Your task to perform on an android device: set default search engine in the chrome app Image 0: 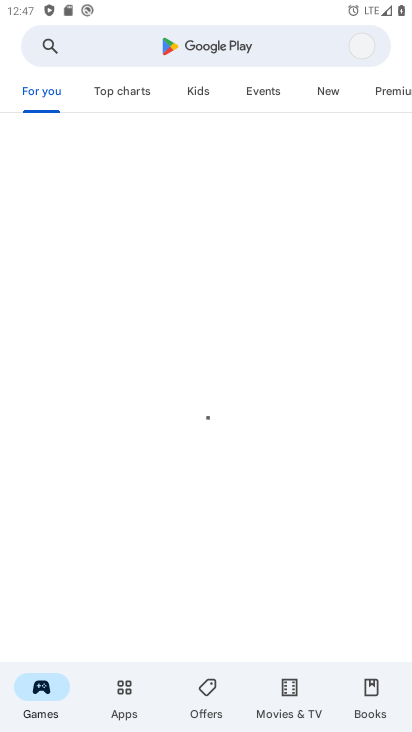
Step 0: press home button
Your task to perform on an android device: set default search engine in the chrome app Image 1: 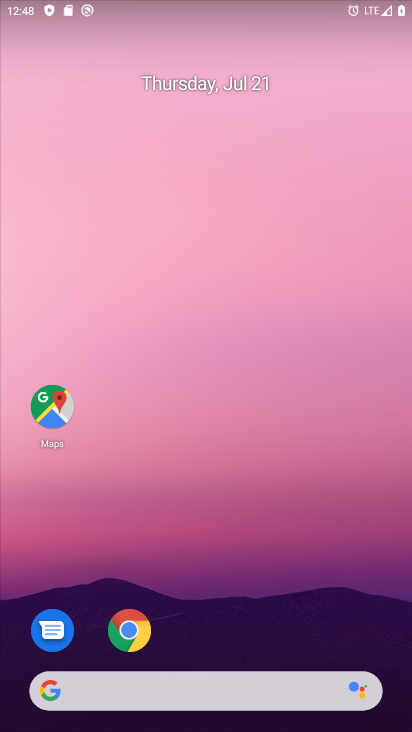
Step 1: click (140, 647)
Your task to perform on an android device: set default search engine in the chrome app Image 2: 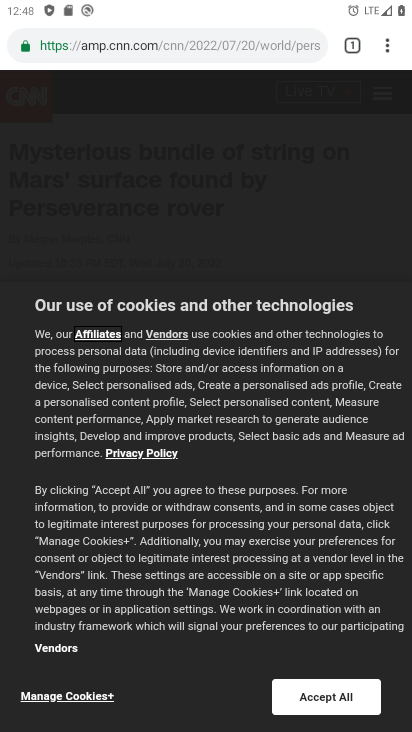
Step 2: click (393, 61)
Your task to perform on an android device: set default search engine in the chrome app Image 3: 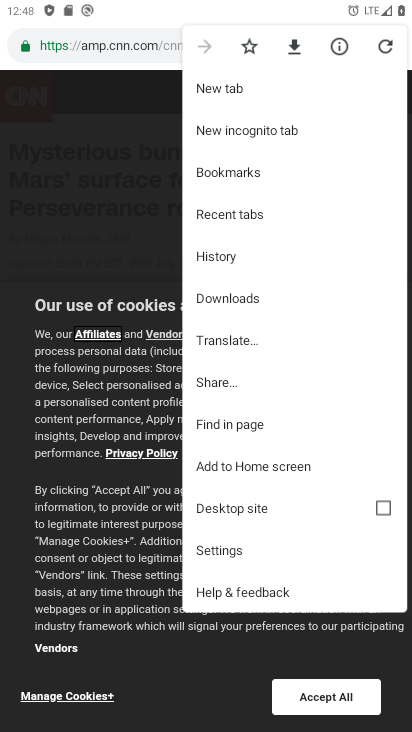
Step 3: click (235, 557)
Your task to perform on an android device: set default search engine in the chrome app Image 4: 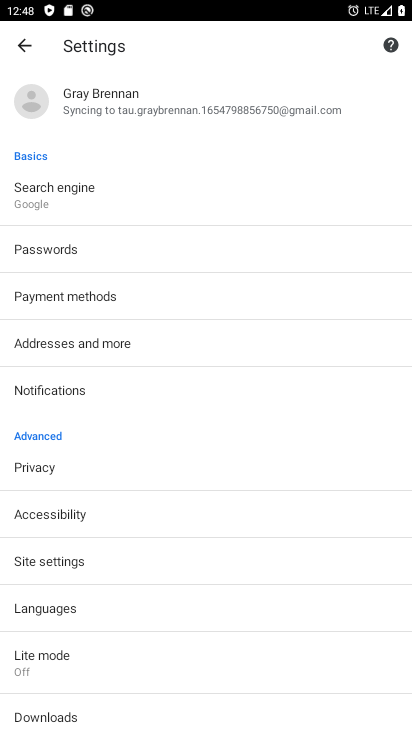
Step 4: click (96, 218)
Your task to perform on an android device: set default search engine in the chrome app Image 5: 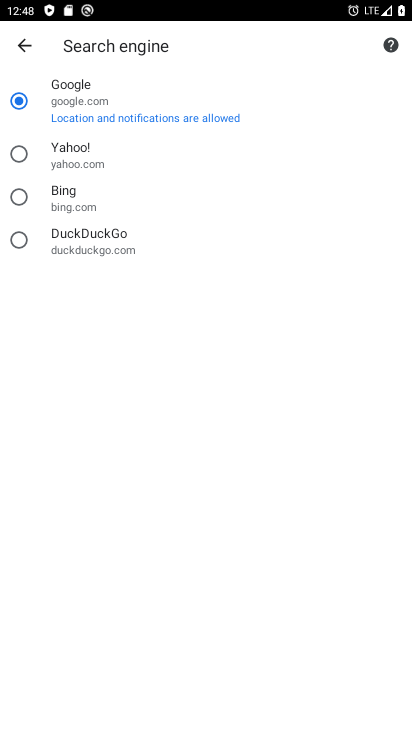
Step 5: click (88, 219)
Your task to perform on an android device: set default search engine in the chrome app Image 6: 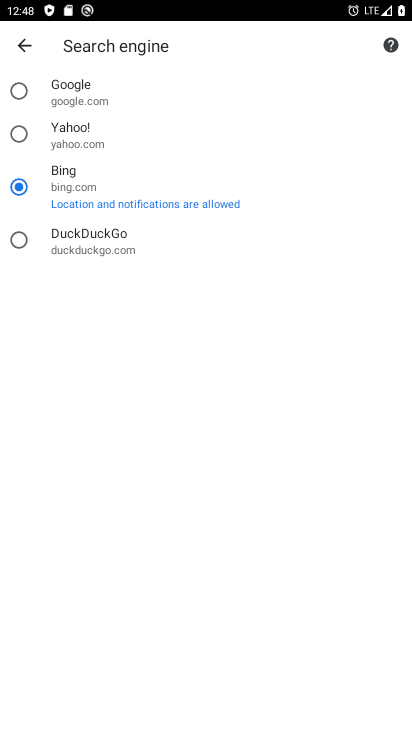
Step 6: task complete